Your task to perform on an android device: Show me recent news Image 0: 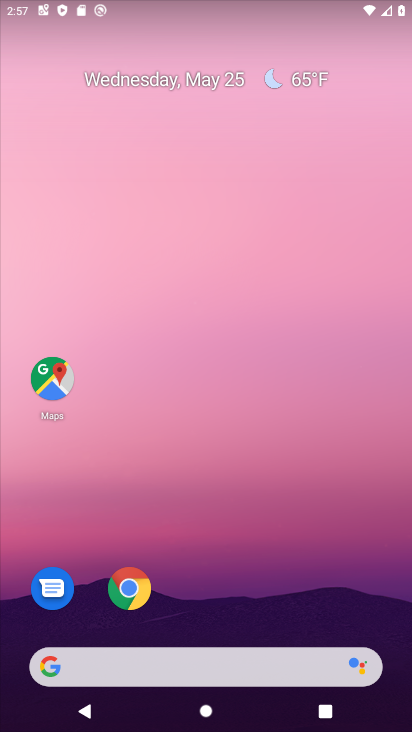
Step 0: click (125, 587)
Your task to perform on an android device: Show me recent news Image 1: 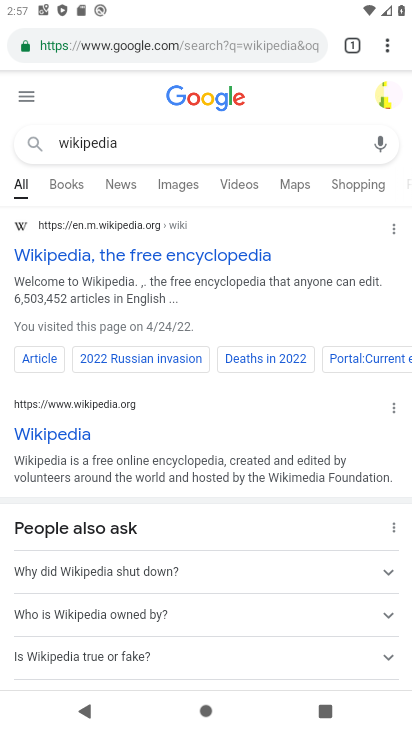
Step 1: click (222, 39)
Your task to perform on an android device: Show me recent news Image 2: 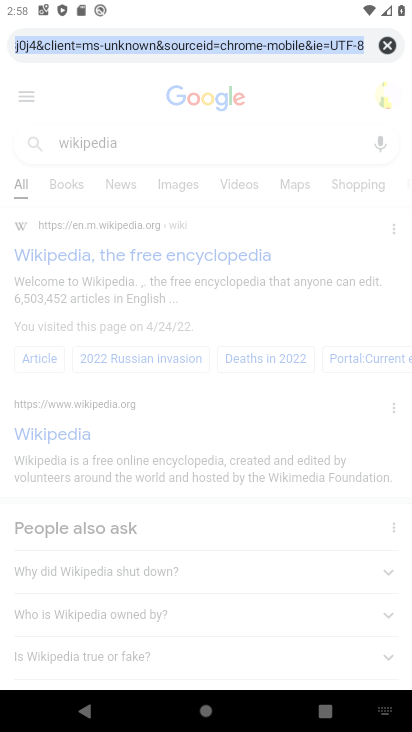
Step 2: type "recent news"
Your task to perform on an android device: Show me recent news Image 3: 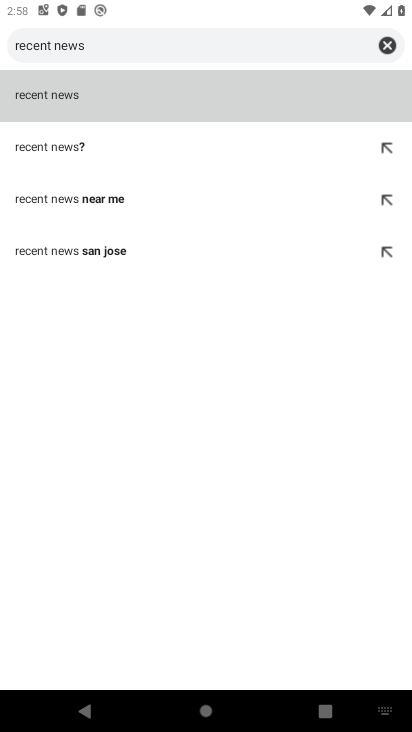
Step 3: click (139, 112)
Your task to perform on an android device: Show me recent news Image 4: 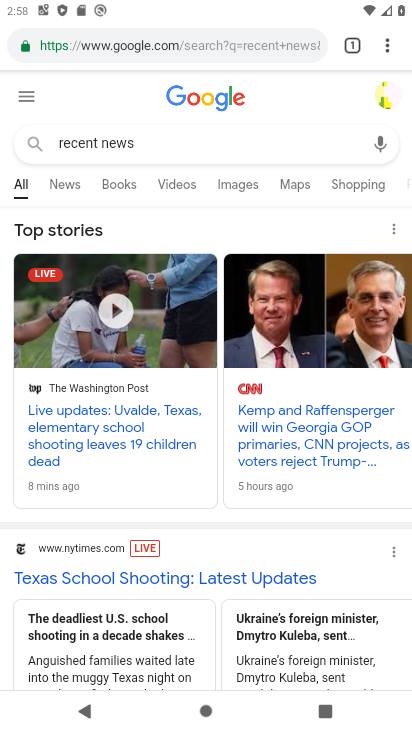
Step 4: task complete